Your task to perform on an android device: Open internet settings Image 0: 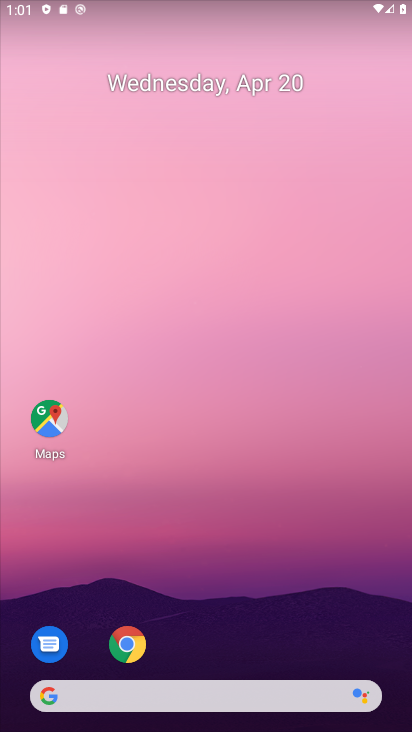
Step 0: drag from (337, 651) to (253, 87)
Your task to perform on an android device: Open internet settings Image 1: 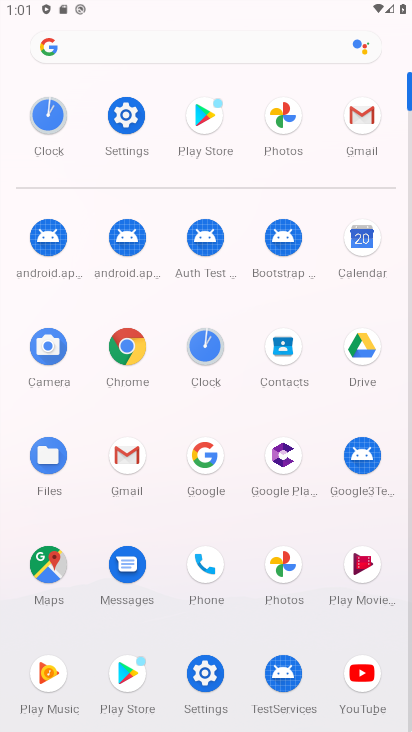
Step 1: click (122, 110)
Your task to perform on an android device: Open internet settings Image 2: 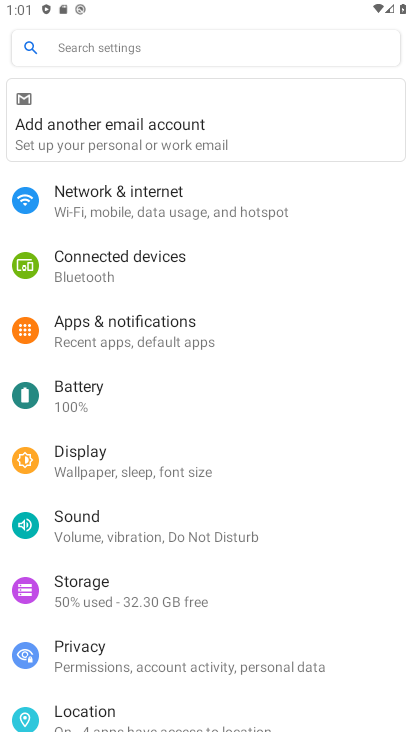
Step 2: click (158, 200)
Your task to perform on an android device: Open internet settings Image 3: 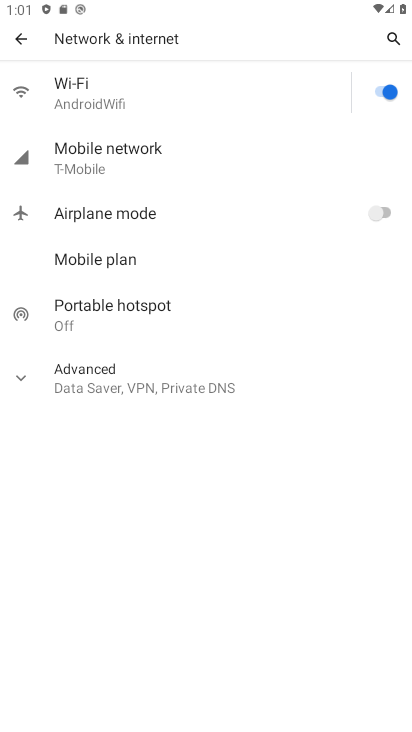
Step 3: task complete